Your task to perform on an android device: Search for sushi restaurants on Maps Image 0: 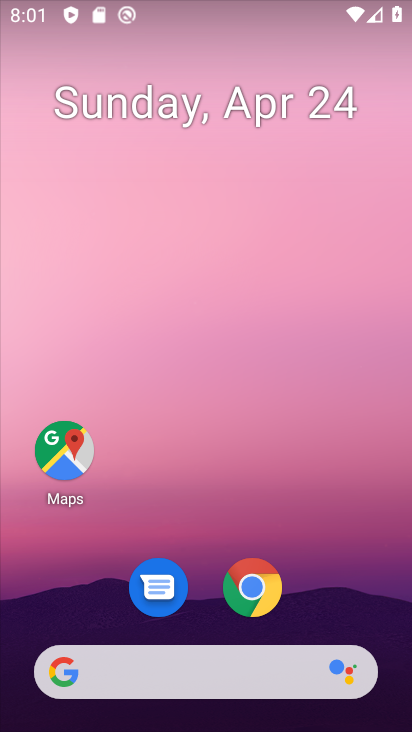
Step 0: click (62, 466)
Your task to perform on an android device: Search for sushi restaurants on Maps Image 1: 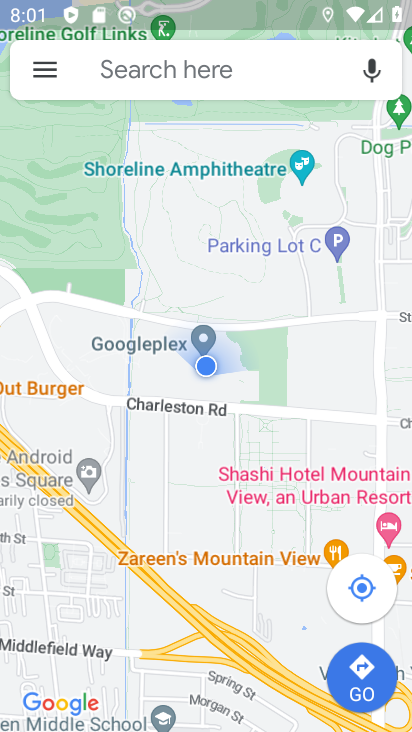
Step 1: click (210, 87)
Your task to perform on an android device: Search for sushi restaurants on Maps Image 2: 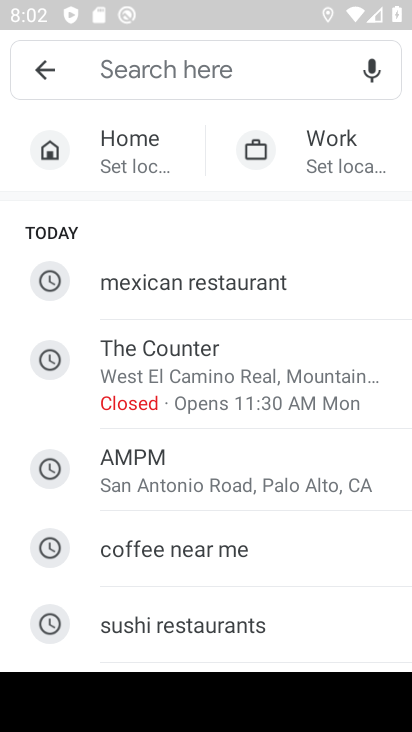
Step 2: click (253, 619)
Your task to perform on an android device: Search for sushi restaurants on Maps Image 3: 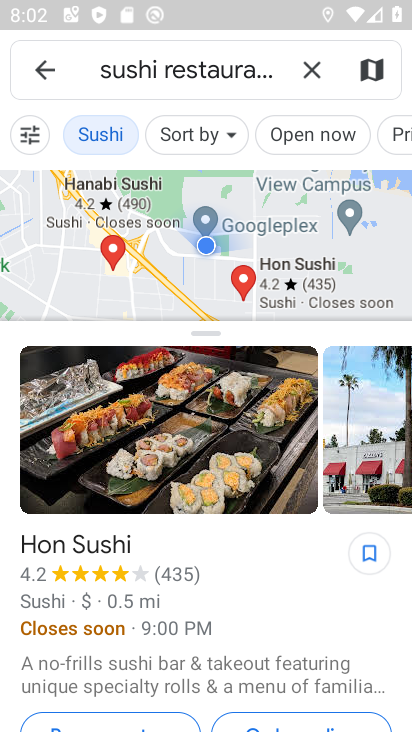
Step 3: task complete